Your task to perform on an android device: snooze an email in the gmail app Image 0: 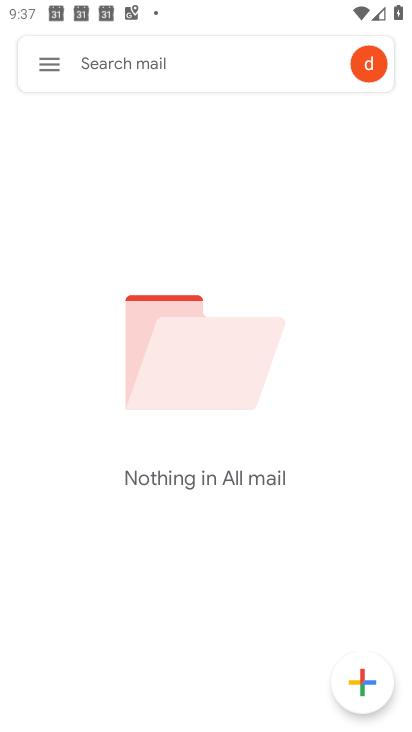
Step 0: click (37, 58)
Your task to perform on an android device: snooze an email in the gmail app Image 1: 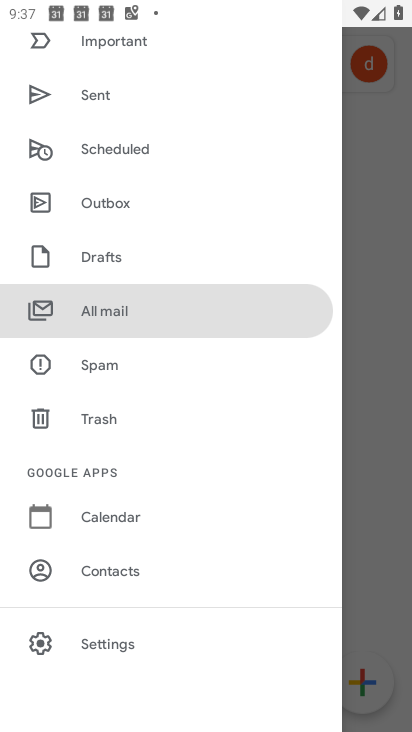
Step 1: drag from (120, 216) to (156, 438)
Your task to perform on an android device: snooze an email in the gmail app Image 2: 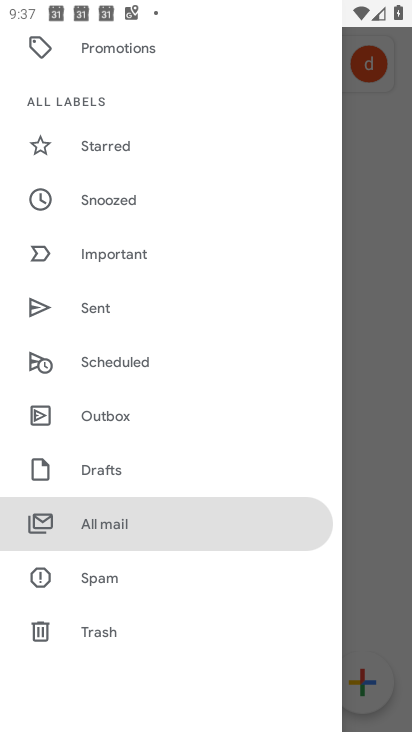
Step 2: click (110, 192)
Your task to perform on an android device: snooze an email in the gmail app Image 3: 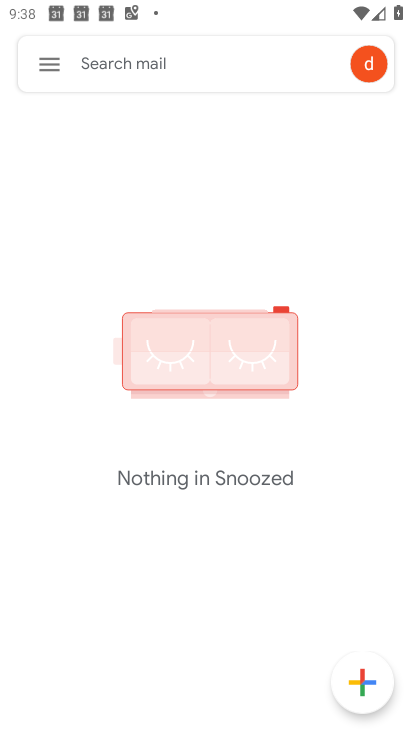
Step 3: task complete